Your task to perform on an android device: toggle sleep mode Image 0: 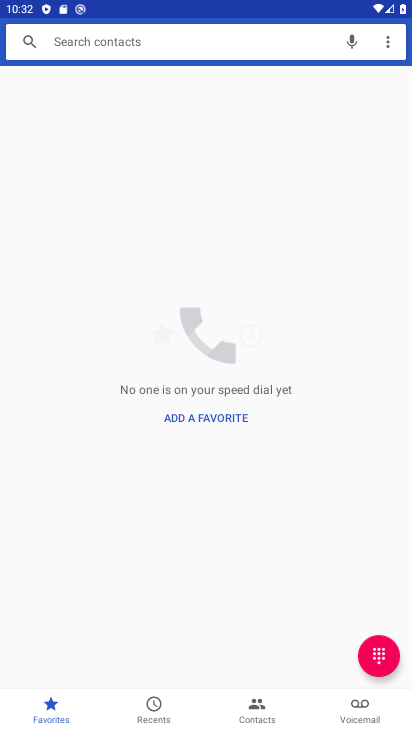
Step 0: press home button
Your task to perform on an android device: toggle sleep mode Image 1: 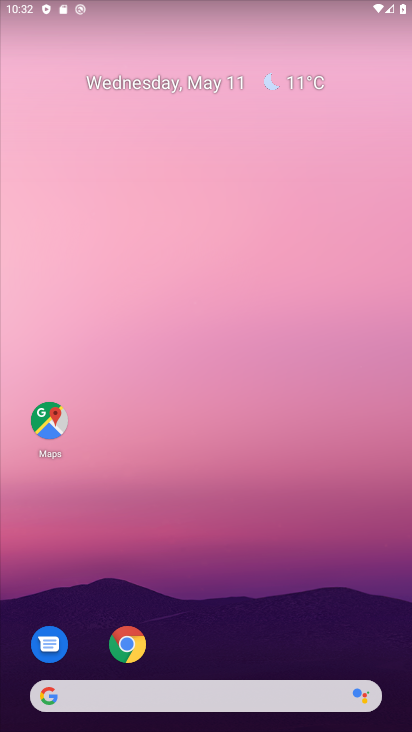
Step 1: drag from (275, 656) to (334, 0)
Your task to perform on an android device: toggle sleep mode Image 2: 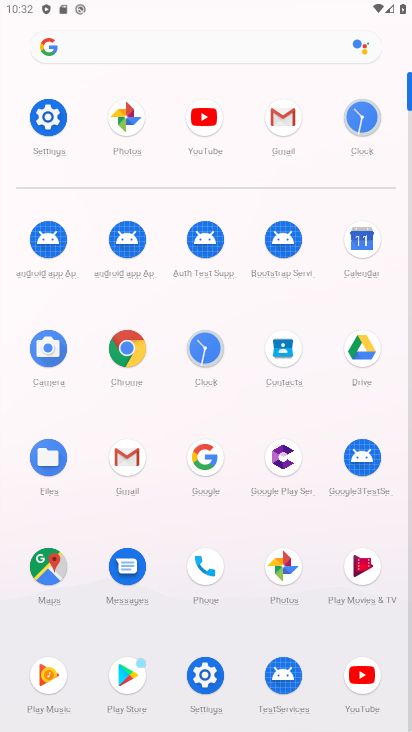
Step 2: click (43, 126)
Your task to perform on an android device: toggle sleep mode Image 3: 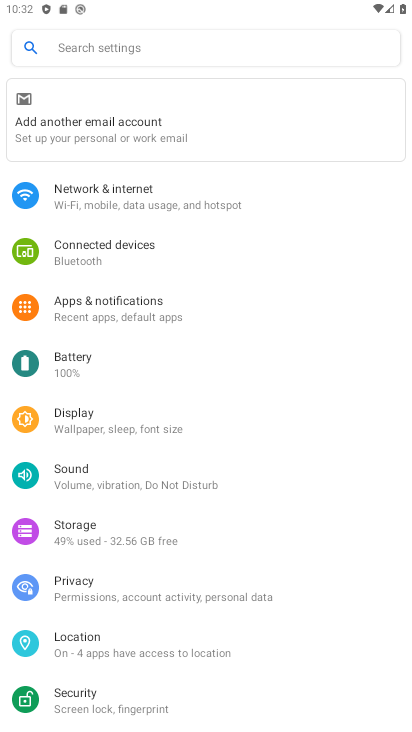
Step 3: click (97, 425)
Your task to perform on an android device: toggle sleep mode Image 4: 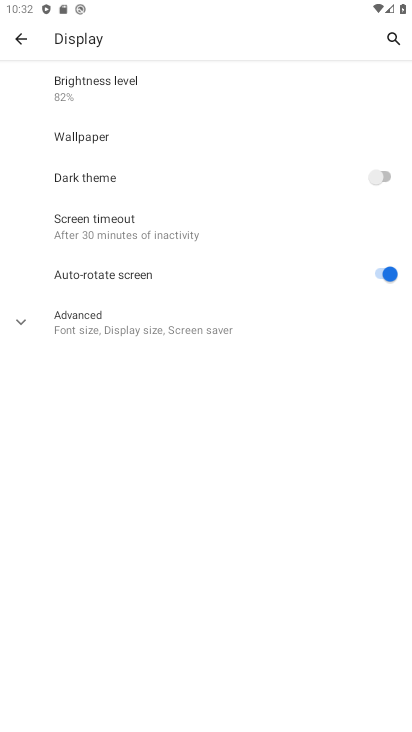
Step 4: click (28, 320)
Your task to perform on an android device: toggle sleep mode Image 5: 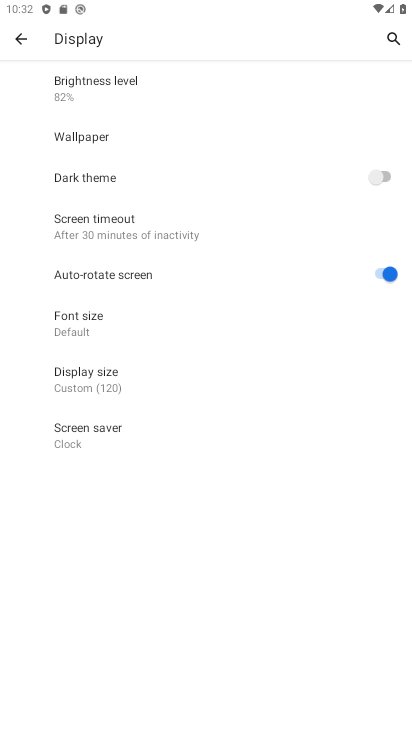
Step 5: task complete